Your task to perform on an android device: change the clock style Image 0: 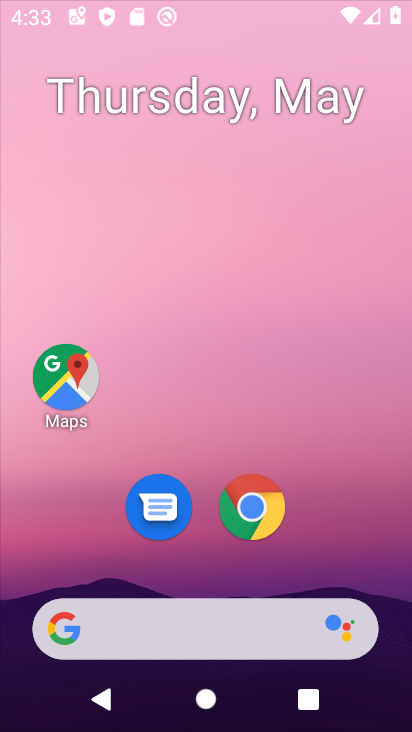
Step 0: drag from (372, 603) to (133, 74)
Your task to perform on an android device: change the clock style Image 1: 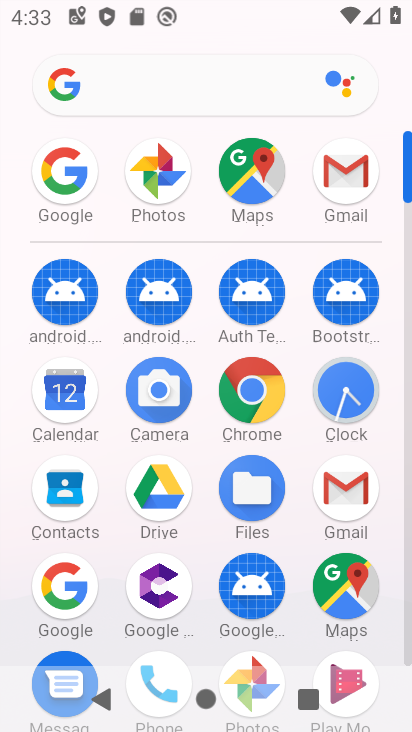
Step 1: click (339, 373)
Your task to perform on an android device: change the clock style Image 2: 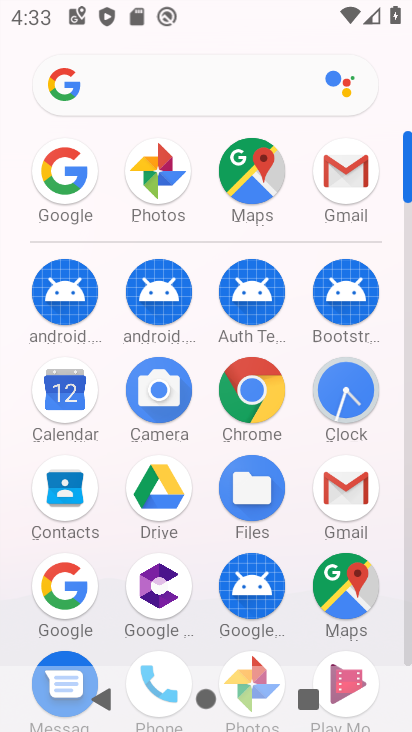
Step 2: click (340, 382)
Your task to perform on an android device: change the clock style Image 3: 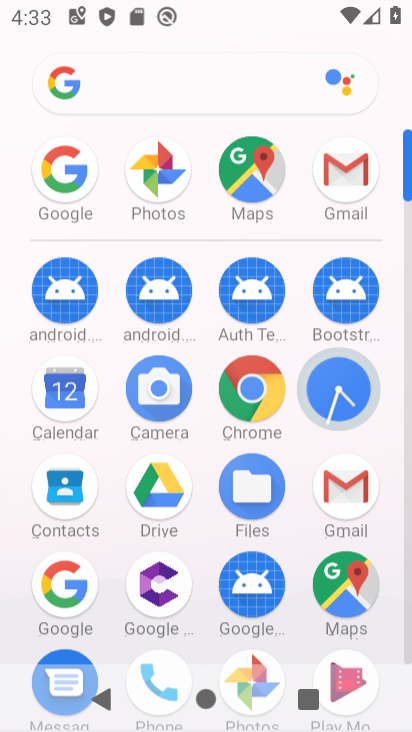
Step 3: click (341, 382)
Your task to perform on an android device: change the clock style Image 4: 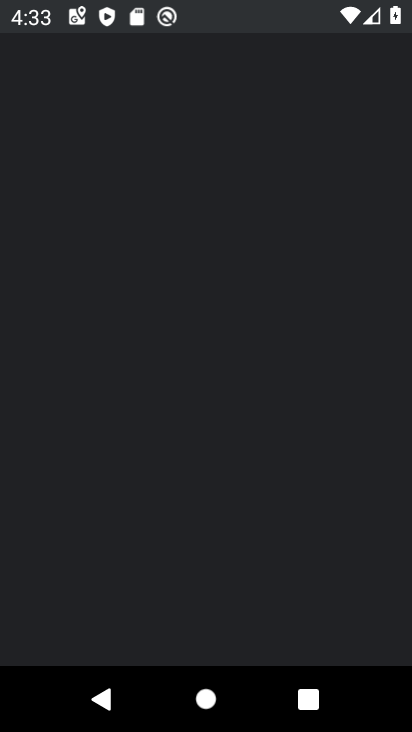
Step 4: click (345, 382)
Your task to perform on an android device: change the clock style Image 5: 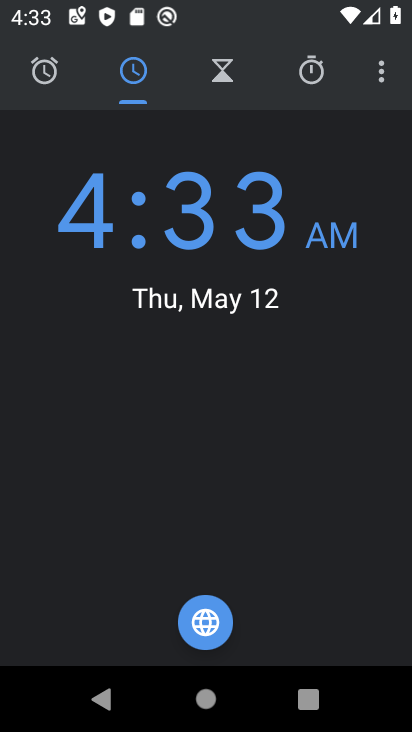
Step 5: click (382, 63)
Your task to perform on an android device: change the clock style Image 6: 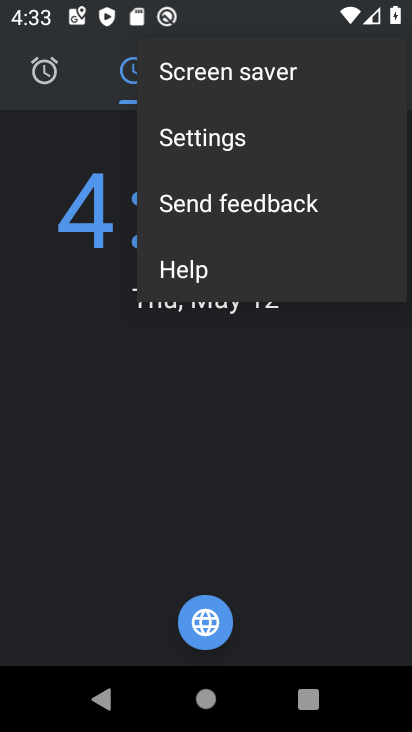
Step 6: click (167, 143)
Your task to perform on an android device: change the clock style Image 7: 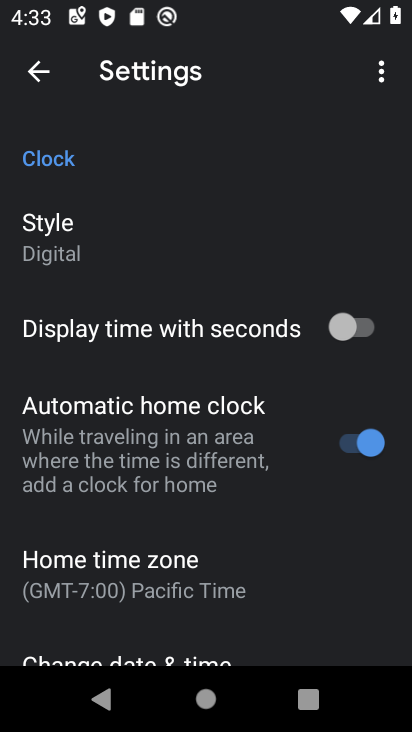
Step 7: click (100, 229)
Your task to perform on an android device: change the clock style Image 8: 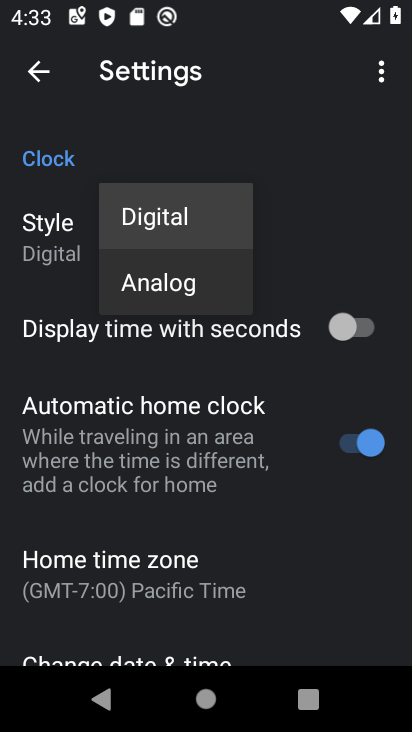
Step 8: click (100, 229)
Your task to perform on an android device: change the clock style Image 9: 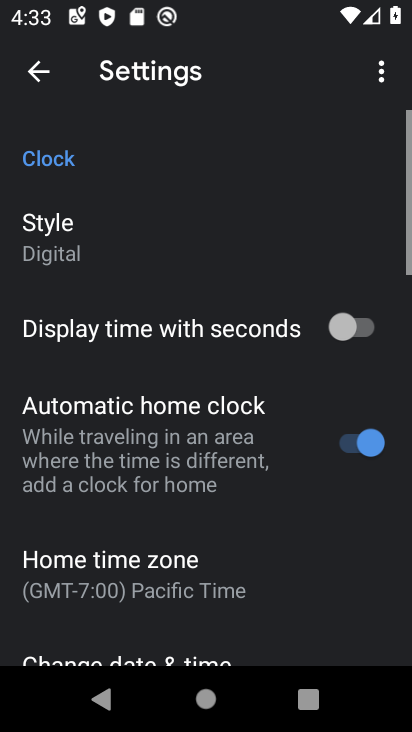
Step 9: click (154, 280)
Your task to perform on an android device: change the clock style Image 10: 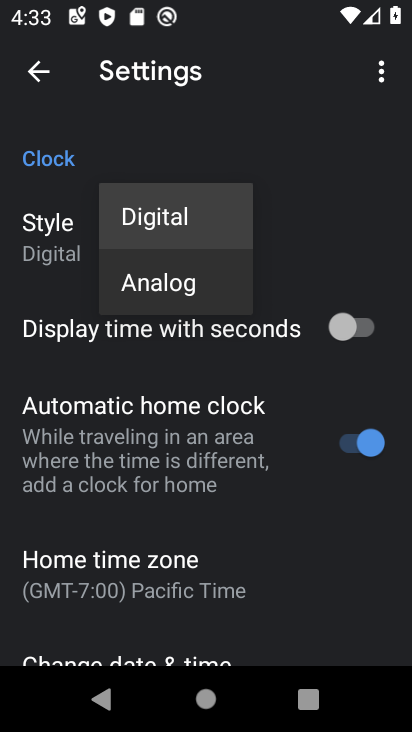
Step 10: click (160, 279)
Your task to perform on an android device: change the clock style Image 11: 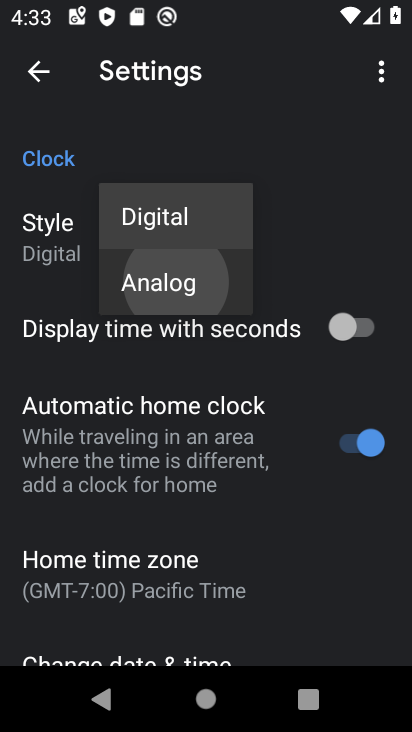
Step 11: click (160, 279)
Your task to perform on an android device: change the clock style Image 12: 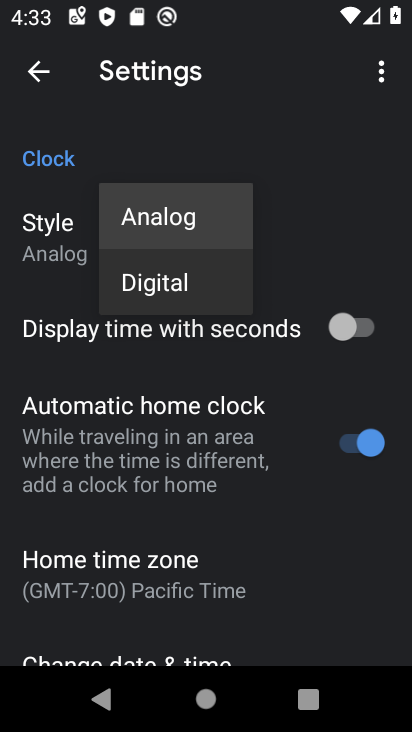
Step 12: task complete